Your task to perform on an android device: delete the emails in spam in the gmail app Image 0: 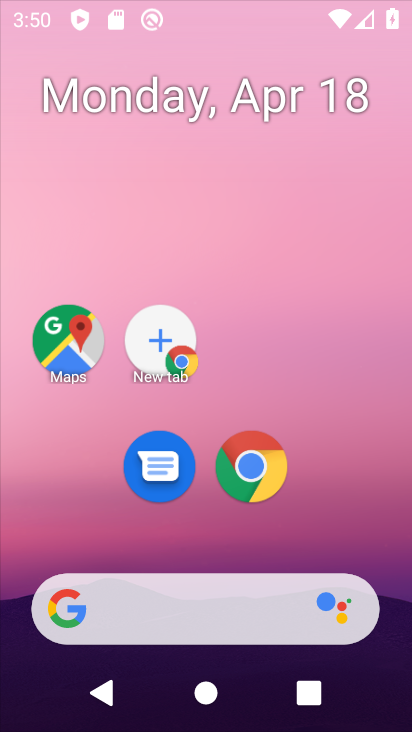
Step 0: drag from (298, 436) to (269, 0)
Your task to perform on an android device: delete the emails in spam in the gmail app Image 1: 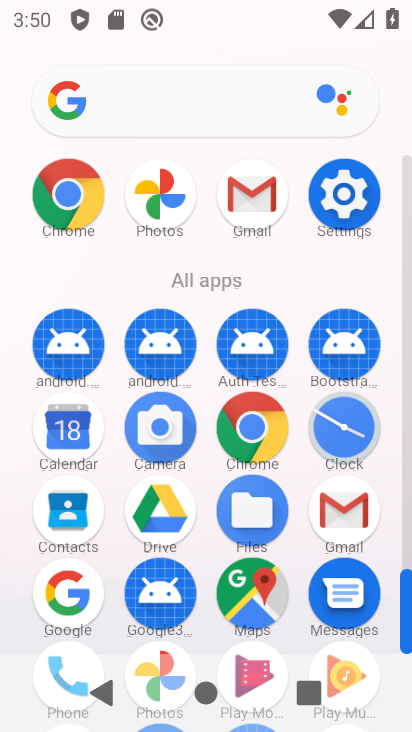
Step 1: drag from (0, 492) to (8, 237)
Your task to perform on an android device: delete the emails in spam in the gmail app Image 2: 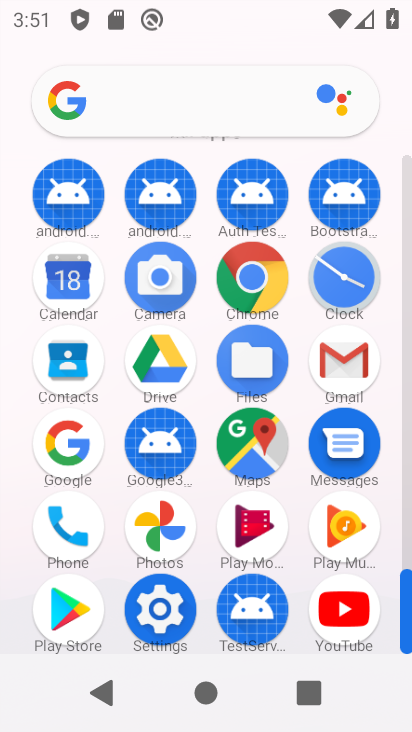
Step 2: click (341, 356)
Your task to perform on an android device: delete the emails in spam in the gmail app Image 3: 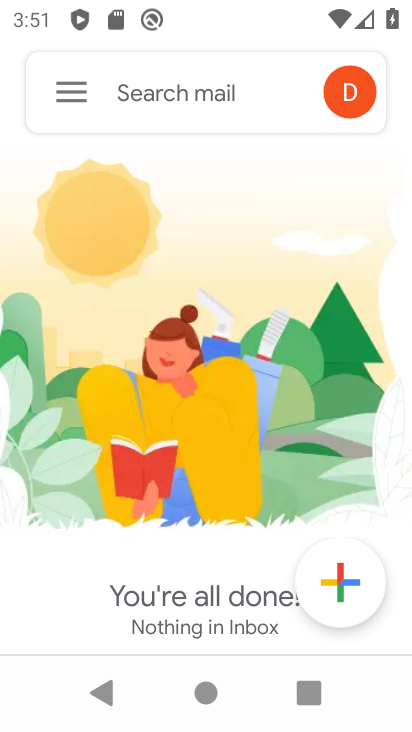
Step 3: click (71, 91)
Your task to perform on an android device: delete the emails in spam in the gmail app Image 4: 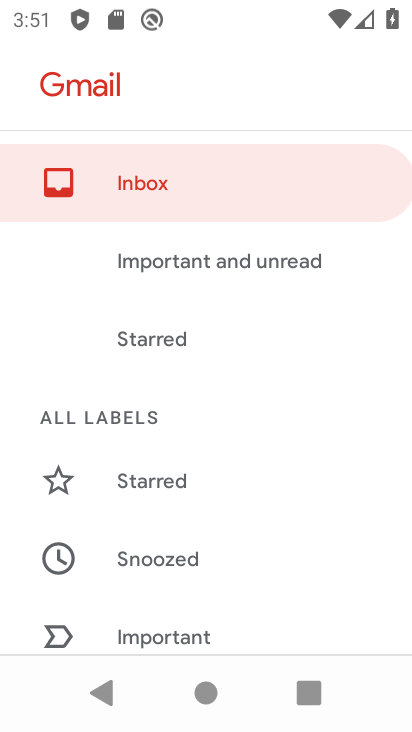
Step 4: drag from (257, 547) to (274, 195)
Your task to perform on an android device: delete the emails in spam in the gmail app Image 5: 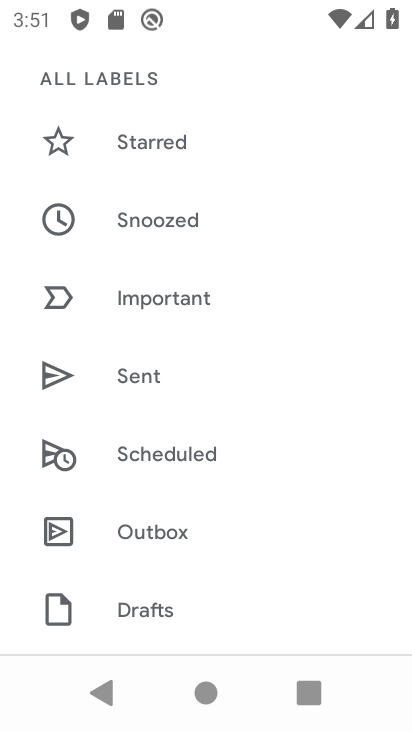
Step 5: drag from (253, 539) to (251, 206)
Your task to perform on an android device: delete the emails in spam in the gmail app Image 6: 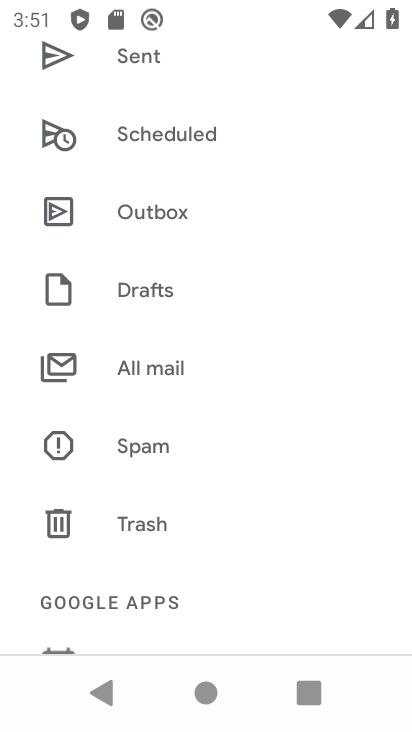
Step 6: drag from (176, 394) to (195, 56)
Your task to perform on an android device: delete the emails in spam in the gmail app Image 7: 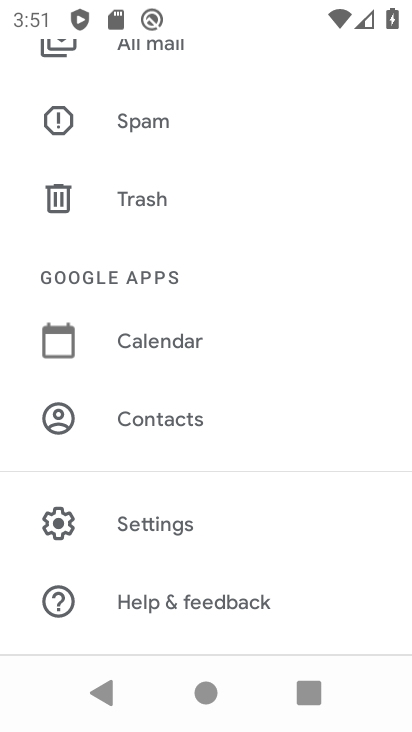
Step 7: drag from (220, 445) to (219, 51)
Your task to perform on an android device: delete the emails in spam in the gmail app Image 8: 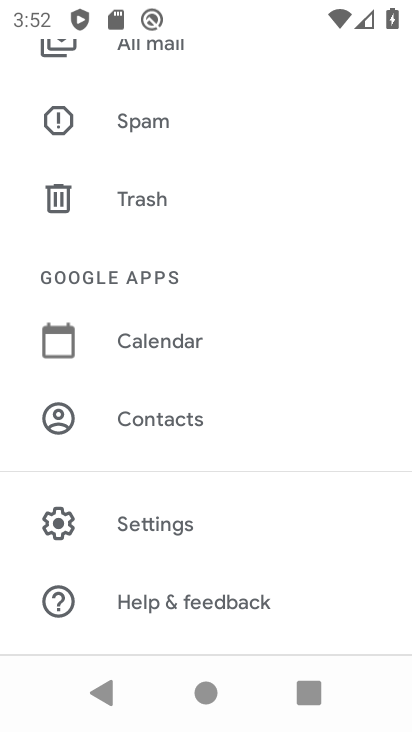
Step 8: click (181, 119)
Your task to perform on an android device: delete the emails in spam in the gmail app Image 9: 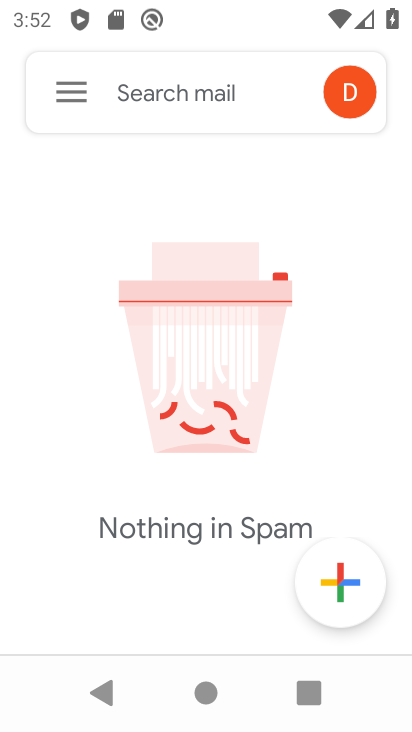
Step 9: task complete